Your task to perform on an android device: Show me recent news Image 0: 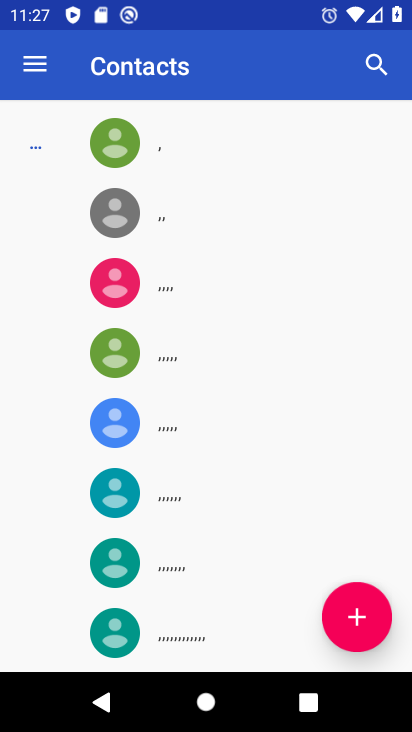
Step 0: press home button
Your task to perform on an android device: Show me recent news Image 1: 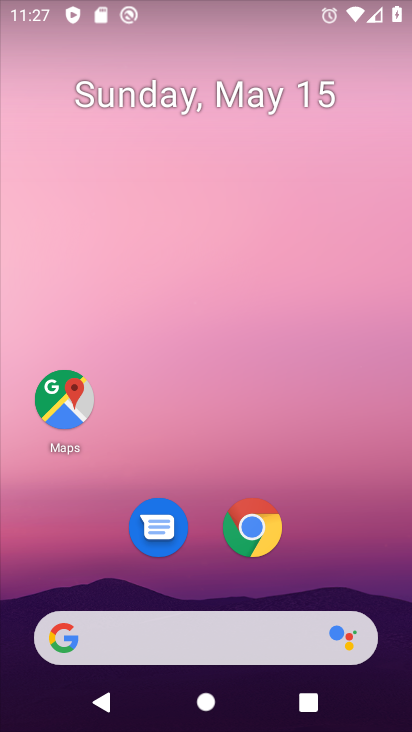
Step 1: drag from (311, 547) to (324, 304)
Your task to perform on an android device: Show me recent news Image 2: 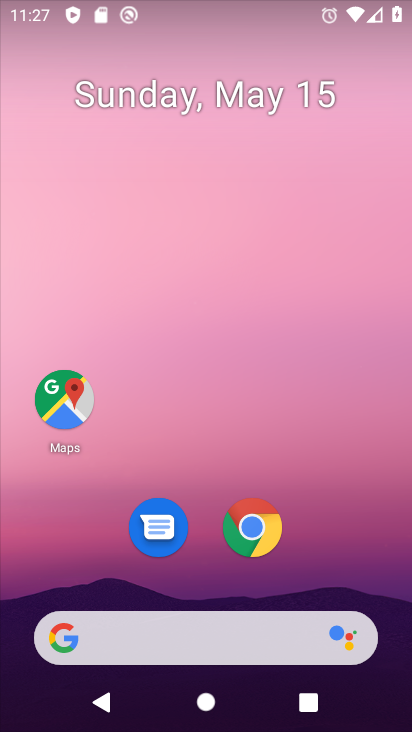
Step 2: drag from (339, 560) to (339, 347)
Your task to perform on an android device: Show me recent news Image 3: 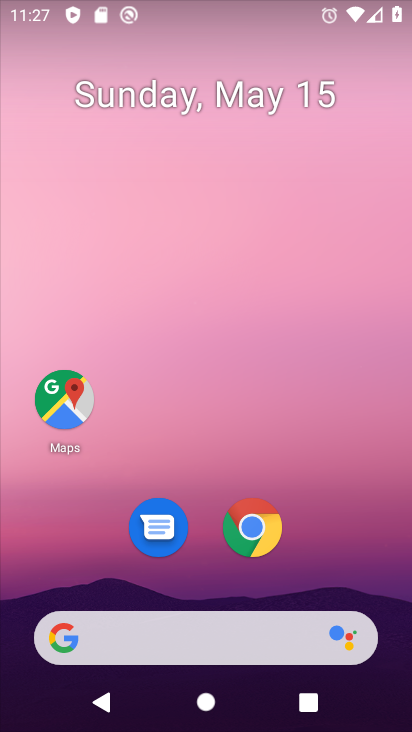
Step 3: click (191, 637)
Your task to perform on an android device: Show me recent news Image 4: 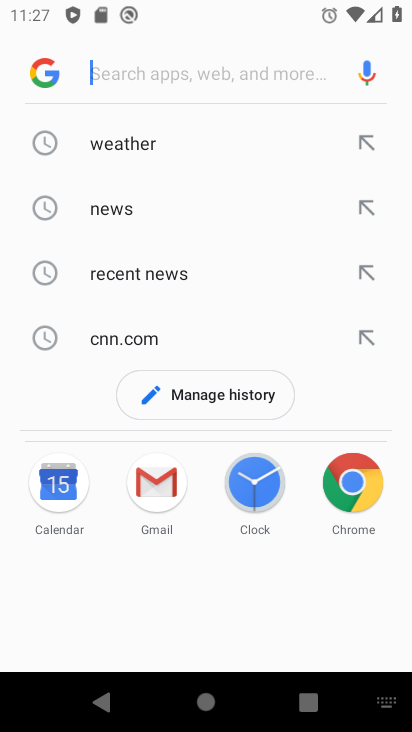
Step 4: click (181, 295)
Your task to perform on an android device: Show me recent news Image 5: 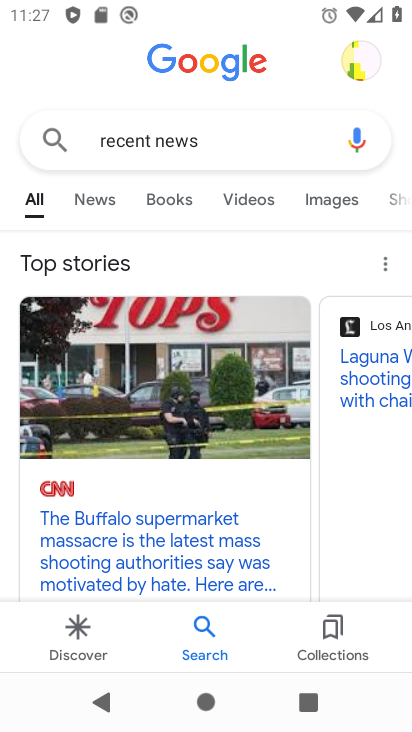
Step 5: task complete